Your task to perform on an android device: move a message to another label in the gmail app Image 0: 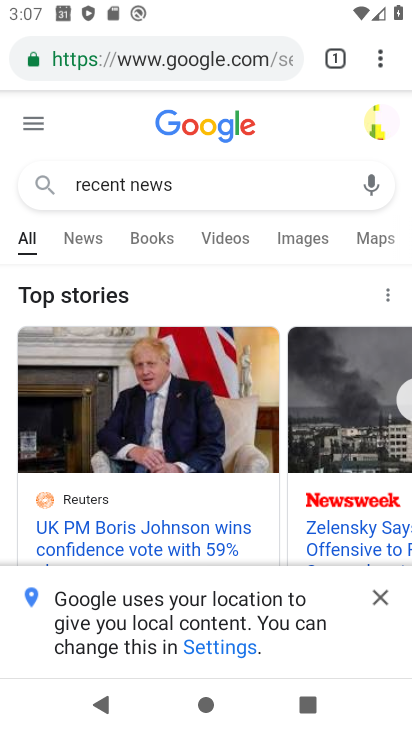
Step 0: press home button
Your task to perform on an android device: move a message to another label in the gmail app Image 1: 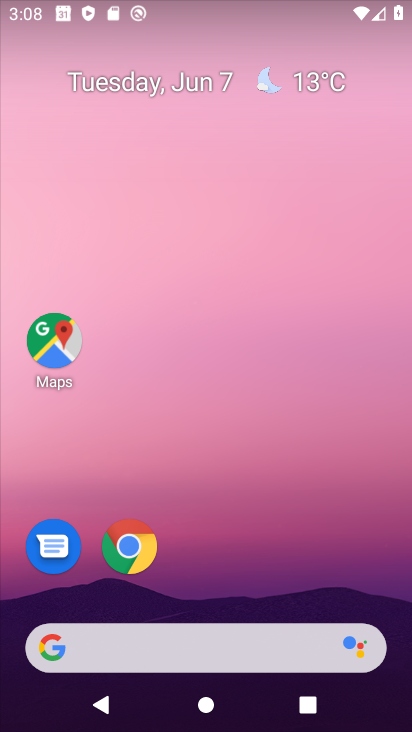
Step 1: drag from (274, 338) to (306, 168)
Your task to perform on an android device: move a message to another label in the gmail app Image 2: 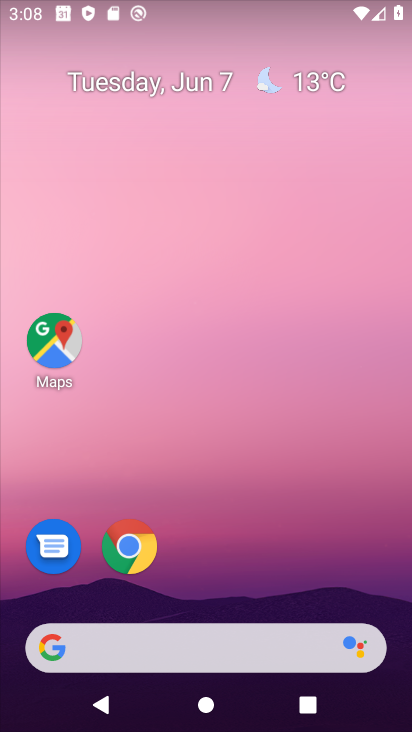
Step 2: drag from (216, 528) to (282, 46)
Your task to perform on an android device: move a message to another label in the gmail app Image 3: 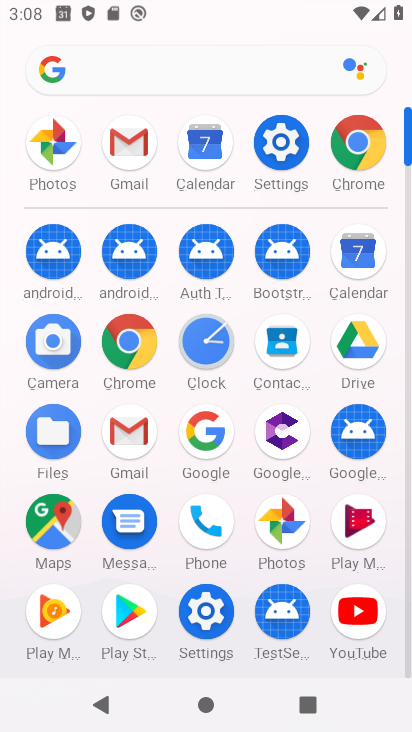
Step 3: click (130, 435)
Your task to perform on an android device: move a message to another label in the gmail app Image 4: 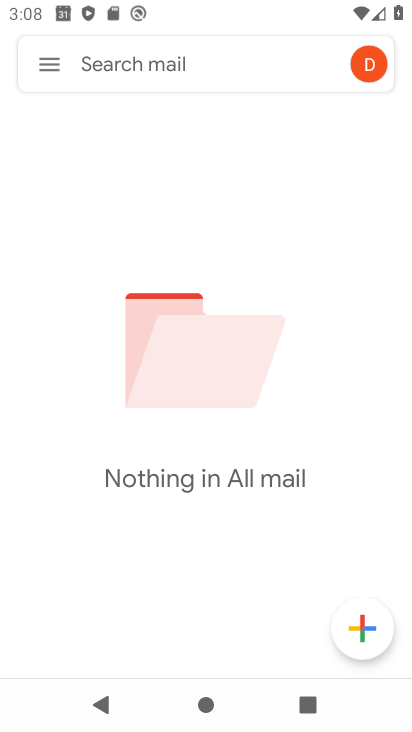
Step 4: click (42, 62)
Your task to perform on an android device: move a message to another label in the gmail app Image 5: 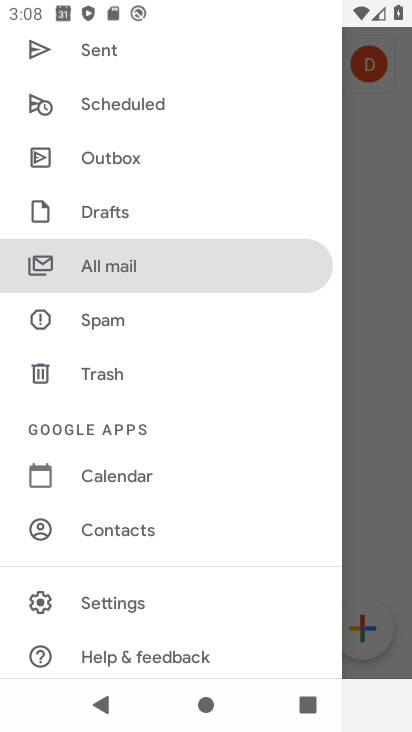
Step 5: click (122, 272)
Your task to perform on an android device: move a message to another label in the gmail app Image 6: 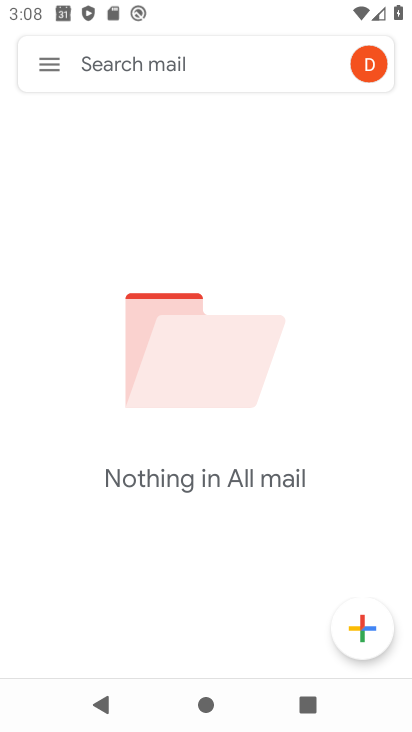
Step 6: task complete